Your task to perform on an android device: Check the news Image 0: 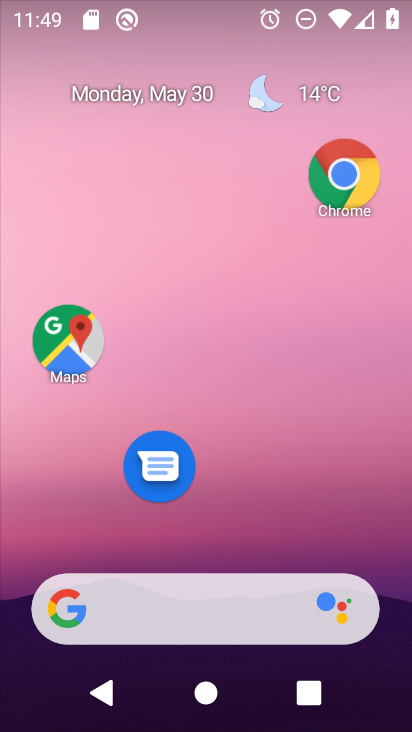
Step 0: click (252, 600)
Your task to perform on an android device: Check the news Image 1: 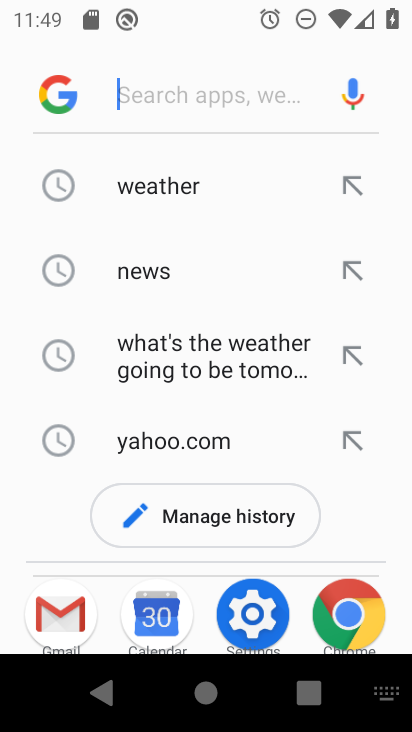
Step 1: click (160, 259)
Your task to perform on an android device: Check the news Image 2: 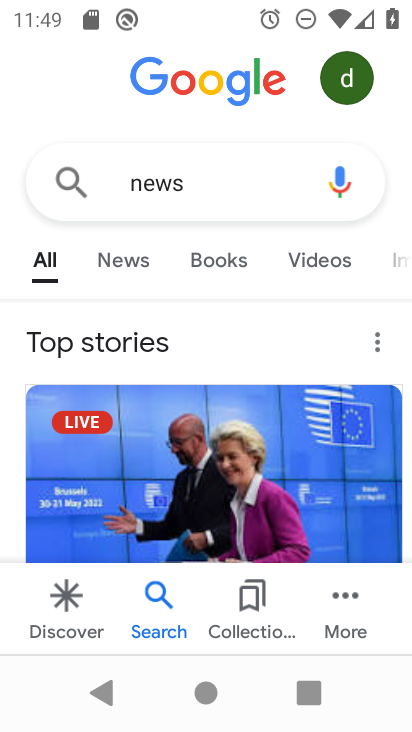
Step 2: task complete